Your task to perform on an android device: find which apps use the phone's location Image 0: 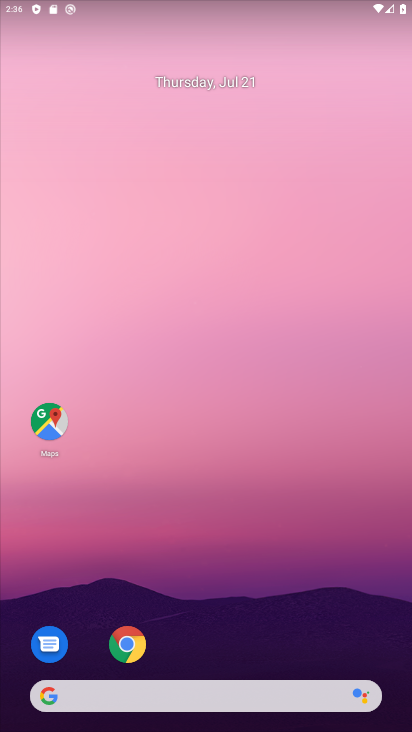
Step 0: drag from (209, 639) to (220, 238)
Your task to perform on an android device: find which apps use the phone's location Image 1: 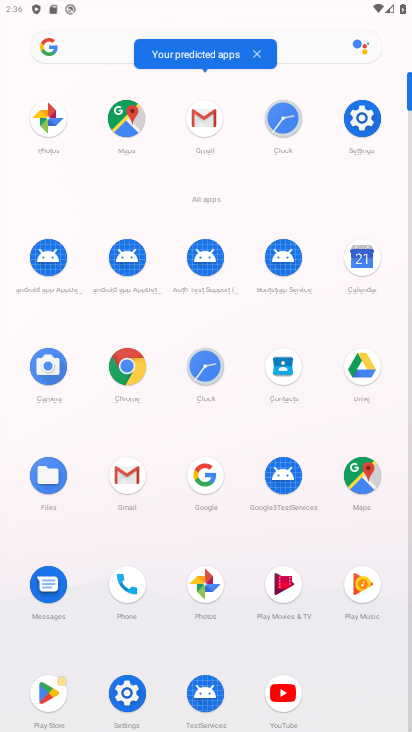
Step 1: drag from (366, 131) to (142, 119)
Your task to perform on an android device: find which apps use the phone's location Image 2: 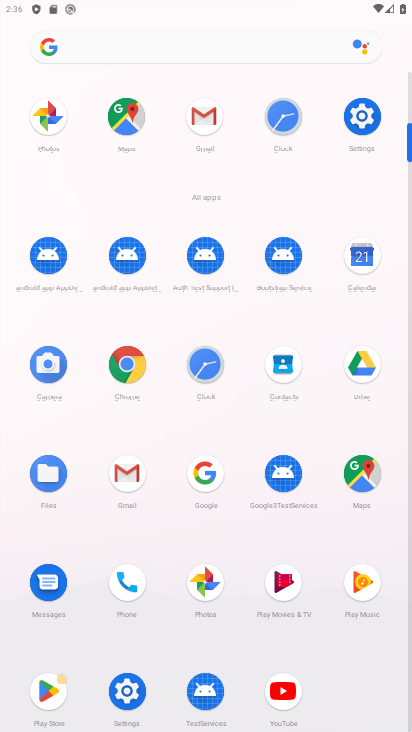
Step 2: drag from (353, 117) to (141, 142)
Your task to perform on an android device: find which apps use the phone's location Image 3: 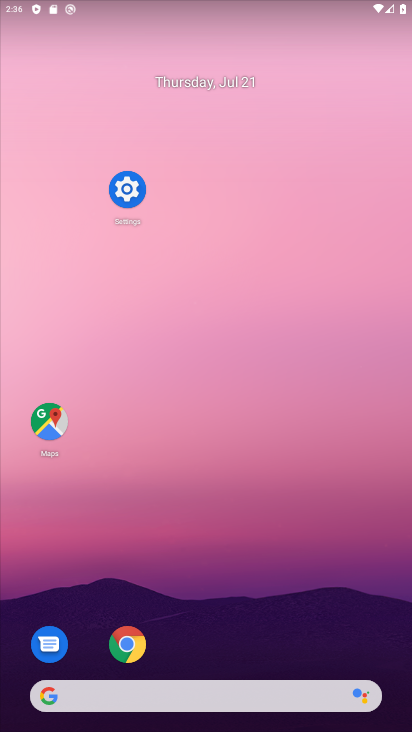
Step 3: click (142, 197)
Your task to perform on an android device: find which apps use the phone's location Image 4: 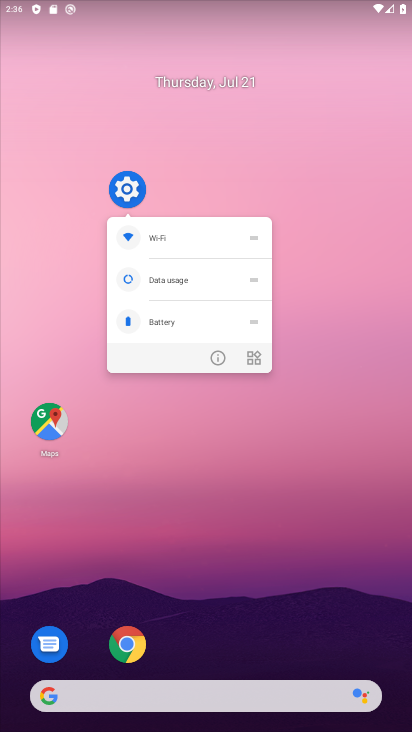
Step 4: click (141, 165)
Your task to perform on an android device: find which apps use the phone's location Image 5: 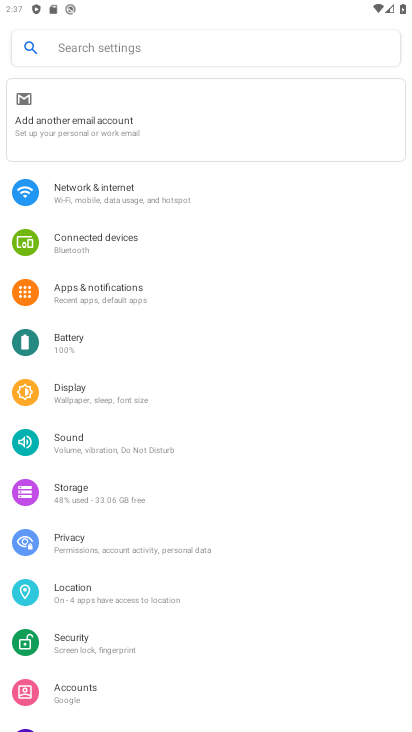
Step 5: click (114, 598)
Your task to perform on an android device: find which apps use the phone's location Image 6: 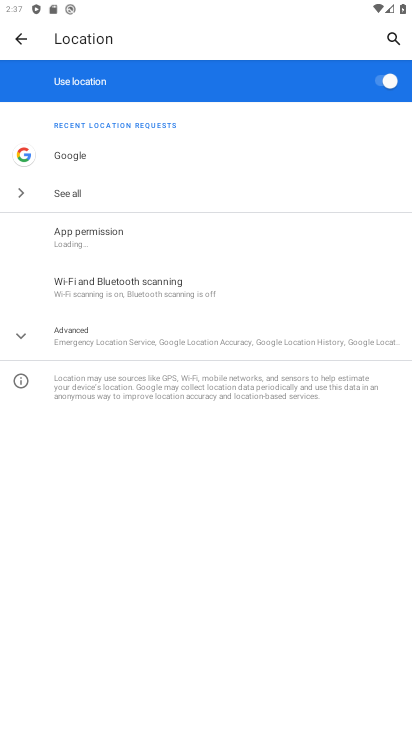
Step 6: task complete